Your task to perform on an android device: toggle improve location accuracy Image 0: 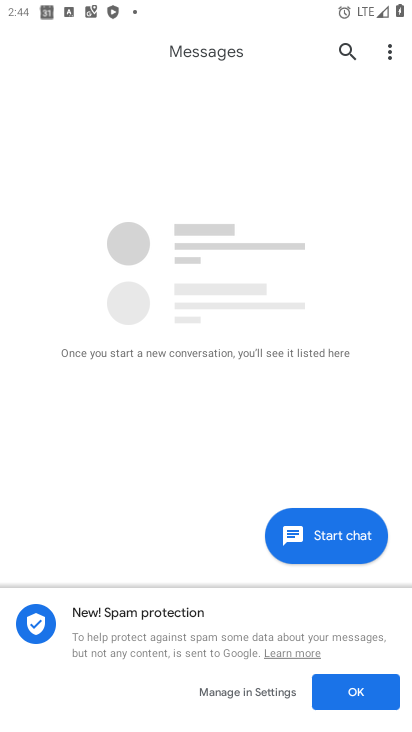
Step 0: press home button
Your task to perform on an android device: toggle improve location accuracy Image 1: 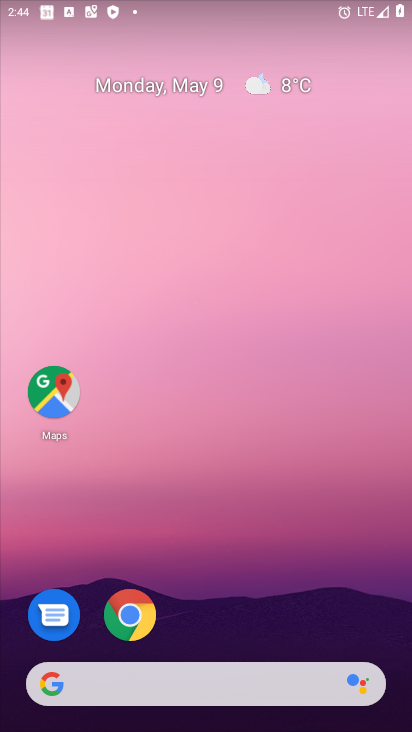
Step 1: drag from (344, 621) to (345, 144)
Your task to perform on an android device: toggle improve location accuracy Image 2: 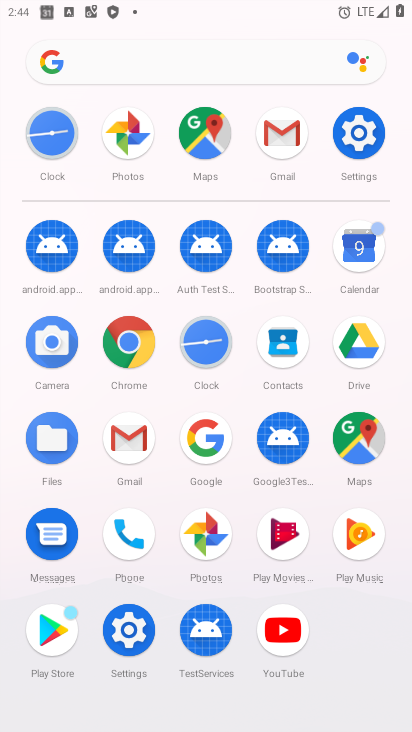
Step 2: click (131, 633)
Your task to perform on an android device: toggle improve location accuracy Image 3: 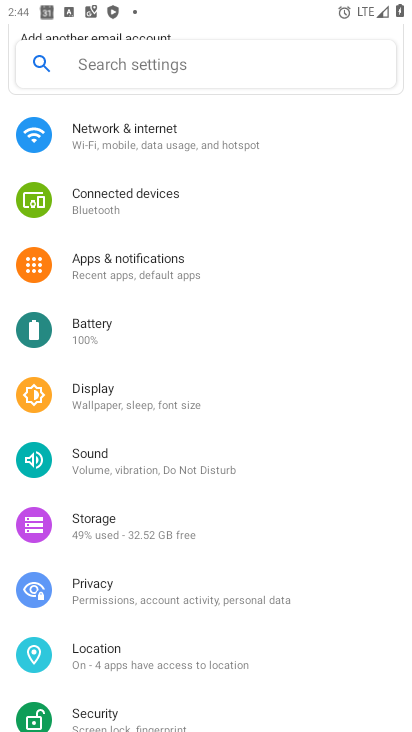
Step 3: click (97, 637)
Your task to perform on an android device: toggle improve location accuracy Image 4: 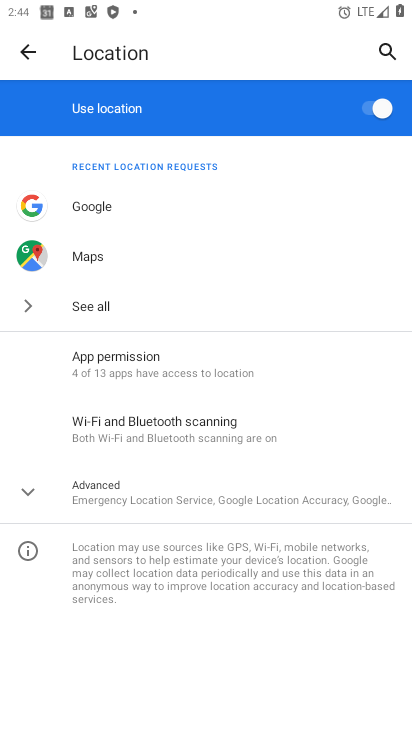
Step 4: click (24, 486)
Your task to perform on an android device: toggle improve location accuracy Image 5: 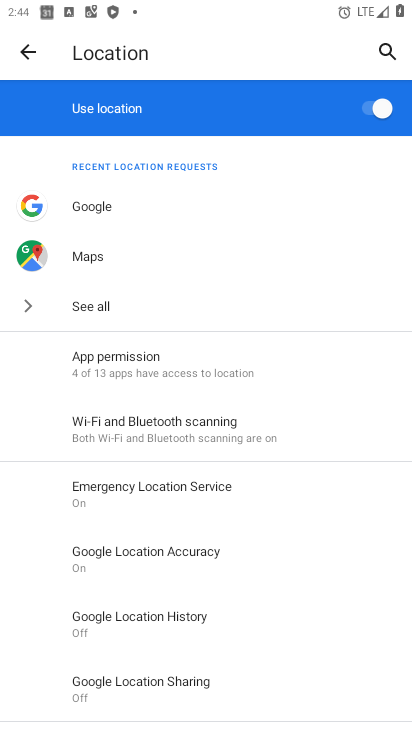
Step 5: click (127, 555)
Your task to perform on an android device: toggle improve location accuracy Image 6: 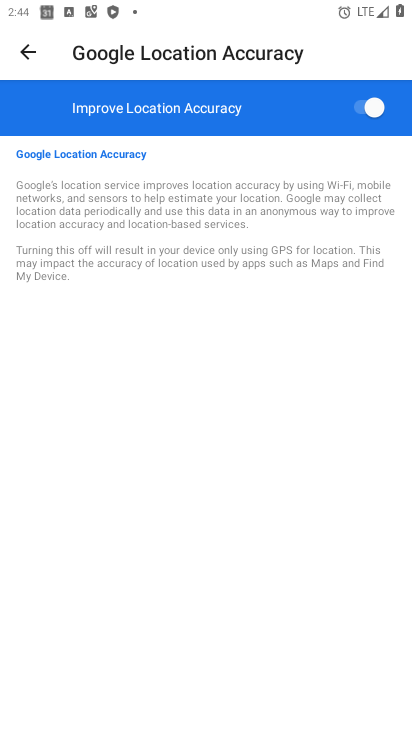
Step 6: click (353, 109)
Your task to perform on an android device: toggle improve location accuracy Image 7: 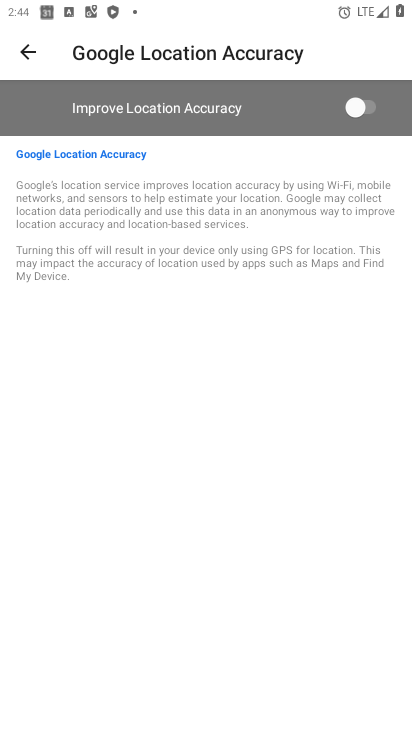
Step 7: task complete